Your task to perform on an android device: open app "DuckDuckGo Privacy Browser" (install if not already installed) and enter user name: "cleaving@outlook.com" and password: "freighters" Image 0: 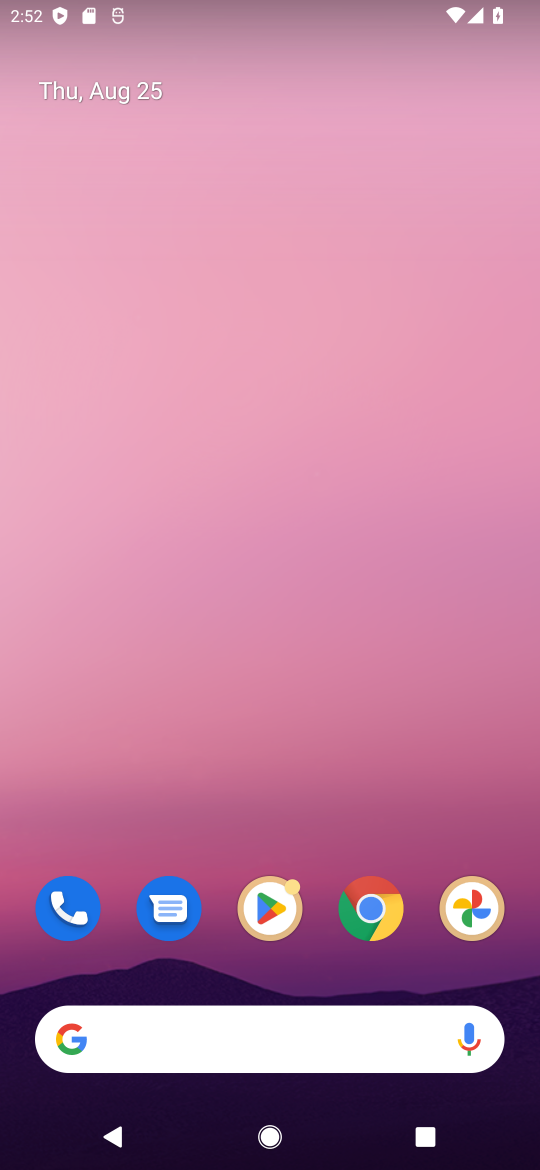
Step 0: click (273, 930)
Your task to perform on an android device: open app "DuckDuckGo Privacy Browser" (install if not already installed) and enter user name: "cleaving@outlook.com" and password: "freighters" Image 1: 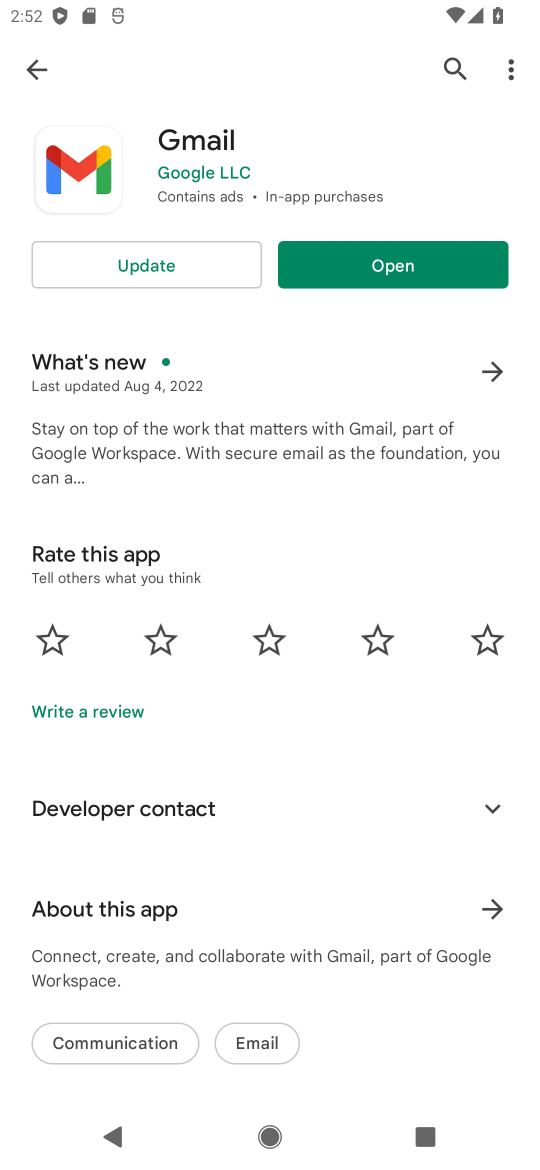
Step 1: click (452, 71)
Your task to perform on an android device: open app "DuckDuckGo Privacy Browser" (install if not already installed) and enter user name: "cleaving@outlook.com" and password: "freighters" Image 2: 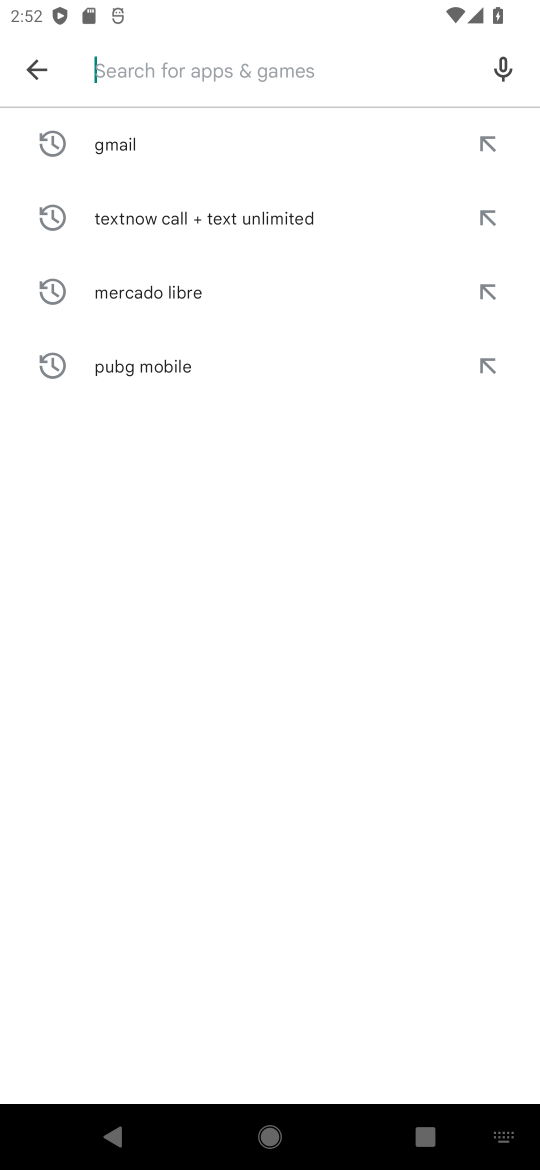
Step 2: type "DuckDuckGo Privacy Browser"
Your task to perform on an android device: open app "DuckDuckGo Privacy Browser" (install if not already installed) and enter user name: "cleaving@outlook.com" and password: "freighters" Image 3: 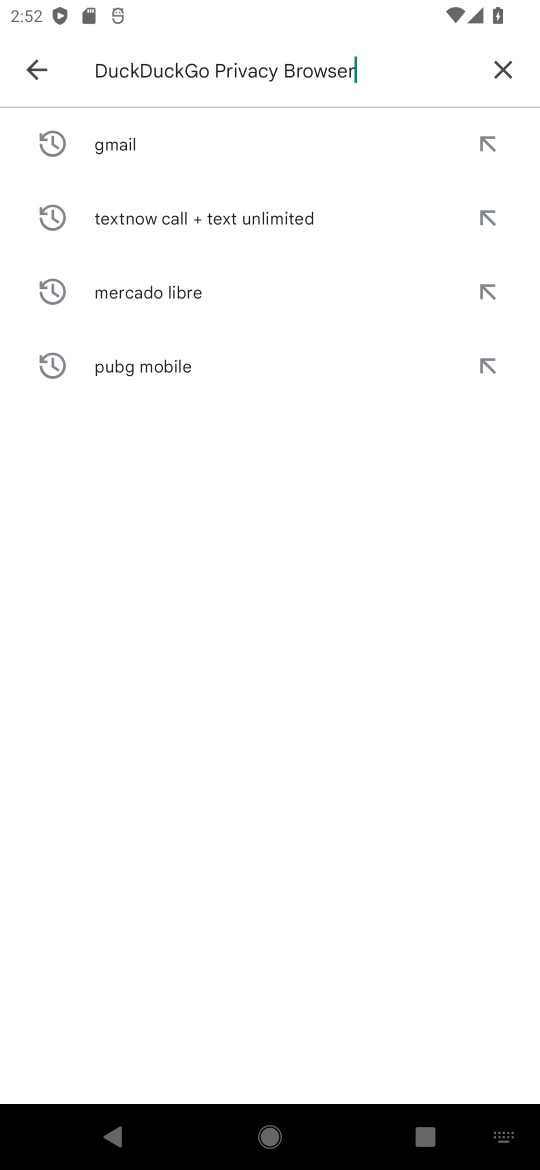
Step 3: type ""
Your task to perform on an android device: open app "DuckDuckGo Privacy Browser" (install if not already installed) and enter user name: "cleaving@outlook.com" and password: "freighters" Image 4: 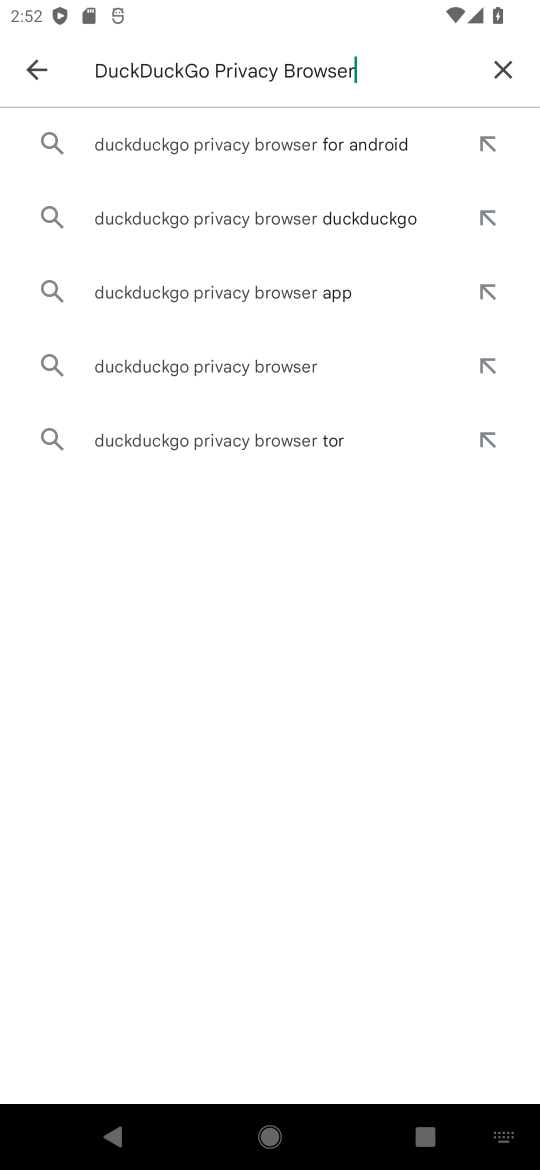
Step 4: click (199, 153)
Your task to perform on an android device: open app "DuckDuckGo Privacy Browser" (install if not already installed) and enter user name: "cleaving@outlook.com" and password: "freighters" Image 5: 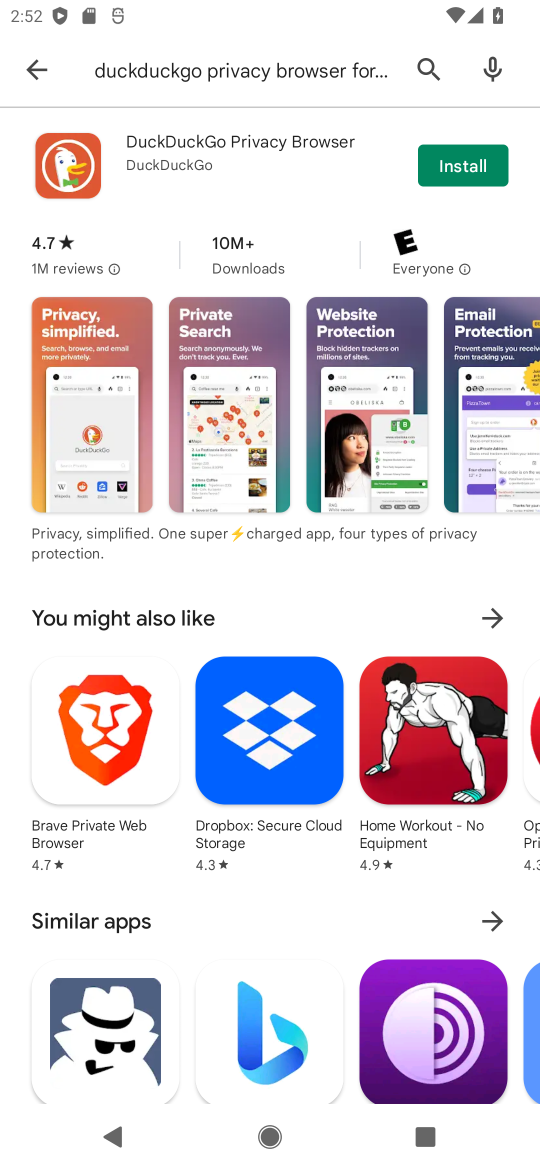
Step 5: click (447, 176)
Your task to perform on an android device: open app "DuckDuckGo Privacy Browser" (install if not already installed) and enter user name: "cleaving@outlook.com" and password: "freighters" Image 6: 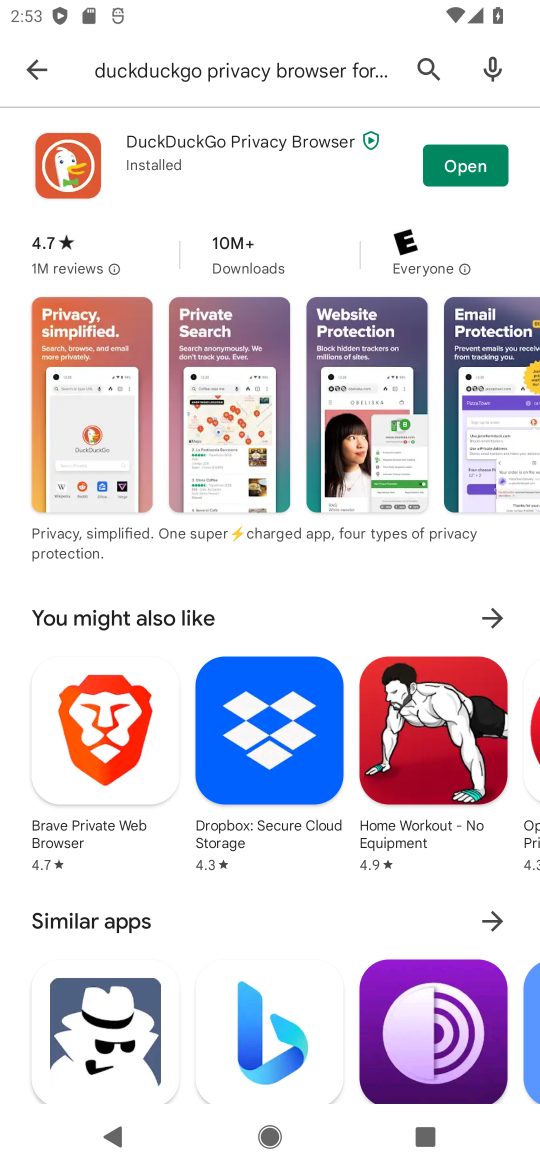
Step 6: click (447, 176)
Your task to perform on an android device: open app "DuckDuckGo Privacy Browser" (install if not already installed) and enter user name: "cleaving@outlook.com" and password: "freighters" Image 7: 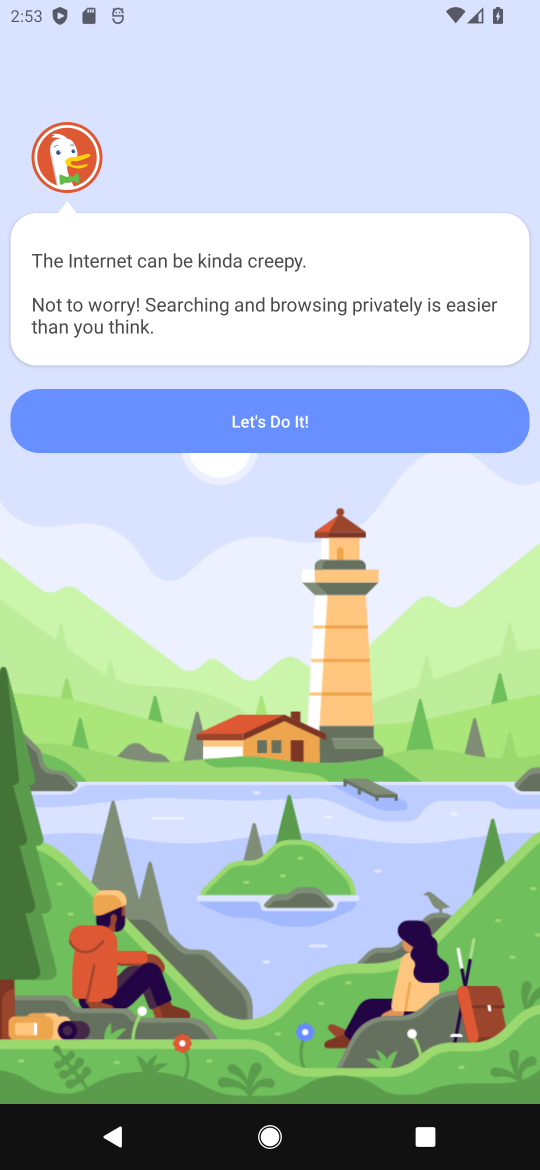
Step 7: task complete